Your task to perform on an android device: Open accessibility settings Image 0: 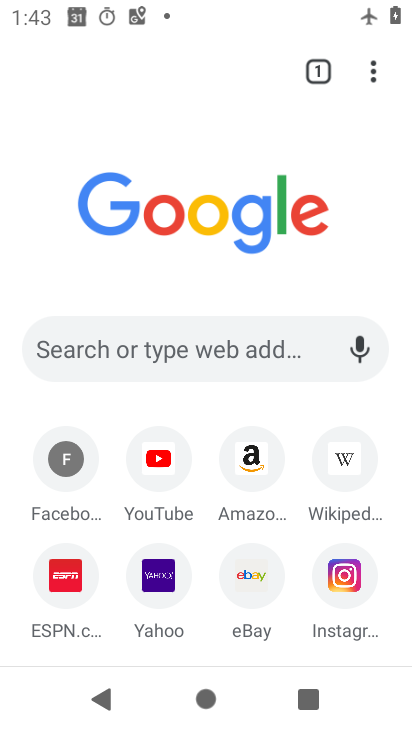
Step 0: press home button
Your task to perform on an android device: Open accessibility settings Image 1: 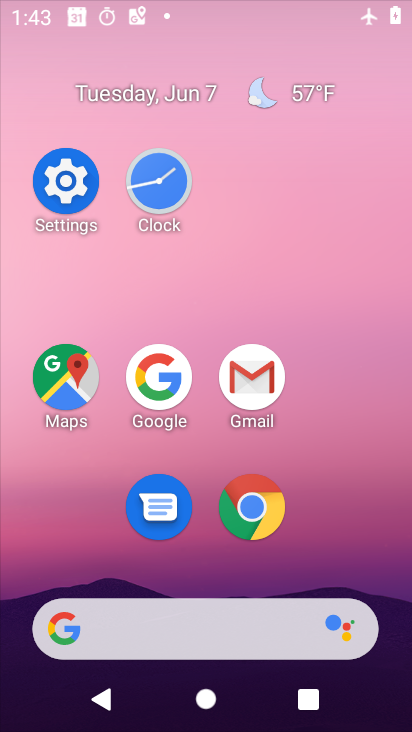
Step 1: click (61, 156)
Your task to perform on an android device: Open accessibility settings Image 2: 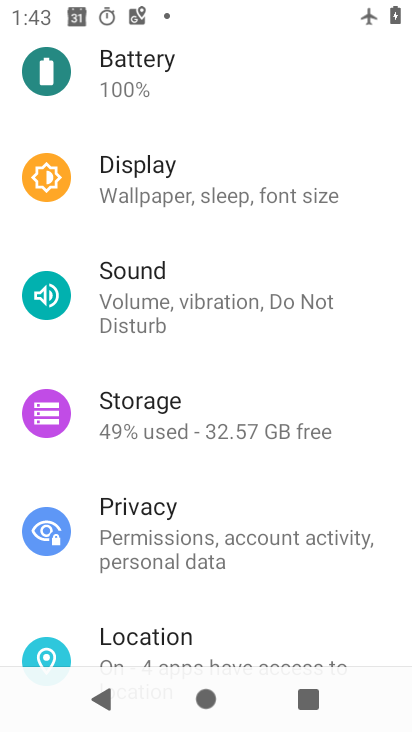
Step 2: drag from (187, 447) to (215, 146)
Your task to perform on an android device: Open accessibility settings Image 3: 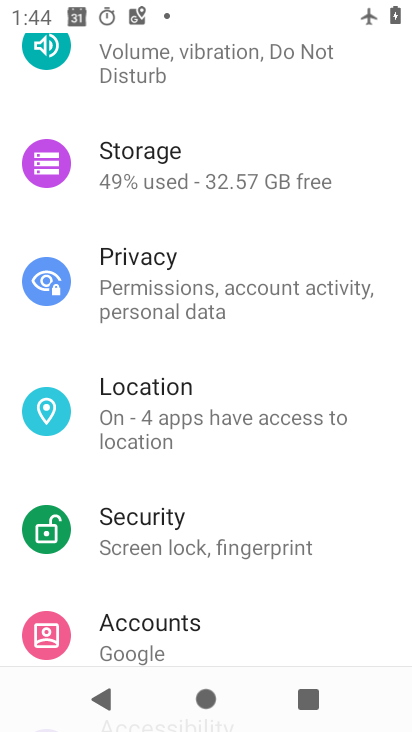
Step 3: drag from (240, 561) to (223, 207)
Your task to perform on an android device: Open accessibility settings Image 4: 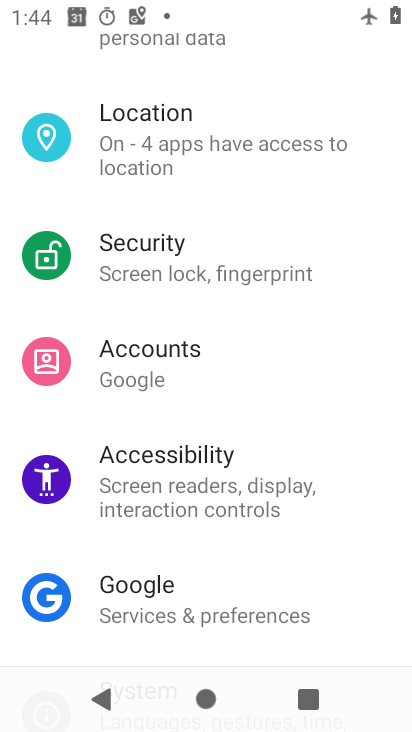
Step 4: click (253, 459)
Your task to perform on an android device: Open accessibility settings Image 5: 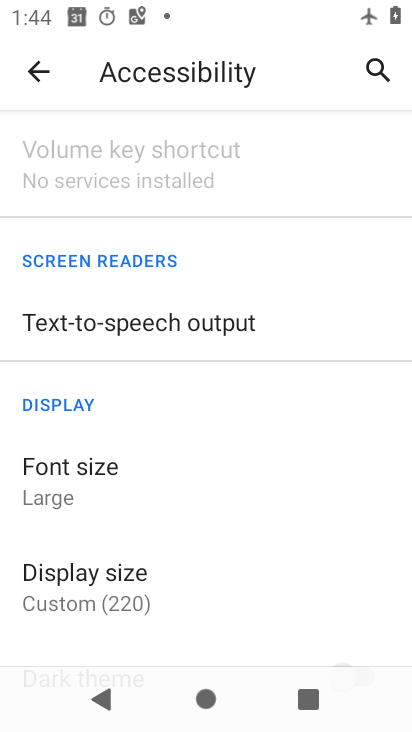
Step 5: task complete